Your task to perform on an android device: Go to Amazon Image 0: 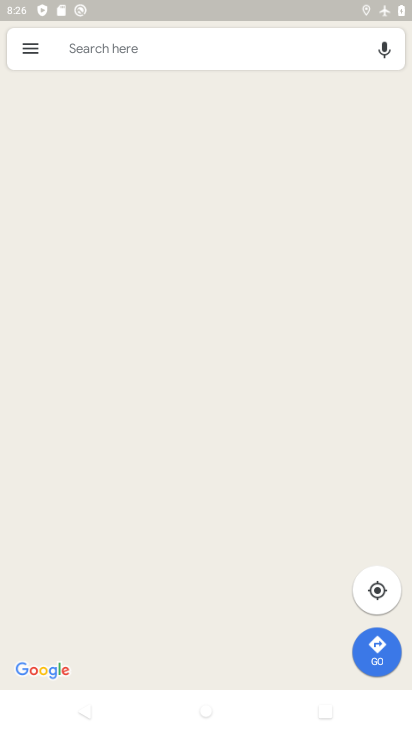
Step 0: press home button
Your task to perform on an android device: Go to Amazon Image 1: 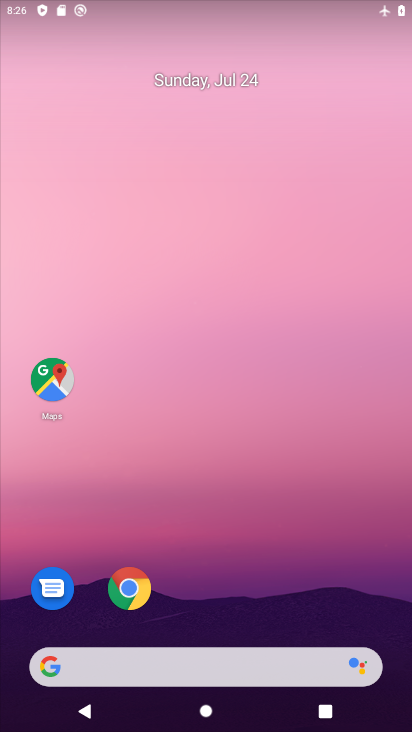
Step 1: click (165, 598)
Your task to perform on an android device: Go to Amazon Image 2: 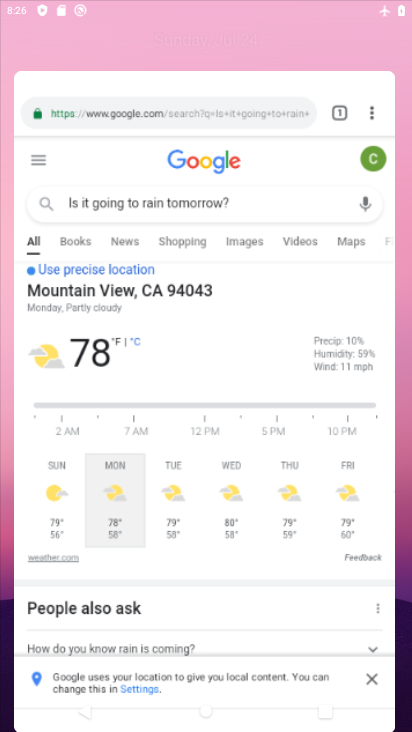
Step 2: click (105, 569)
Your task to perform on an android device: Go to Amazon Image 3: 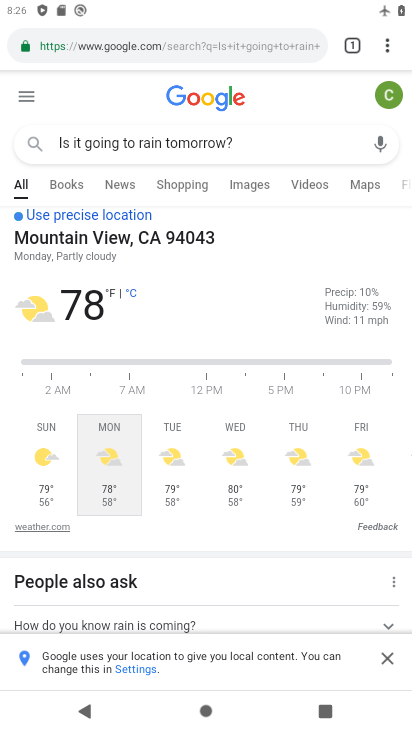
Step 3: click (396, 37)
Your task to perform on an android device: Go to Amazon Image 4: 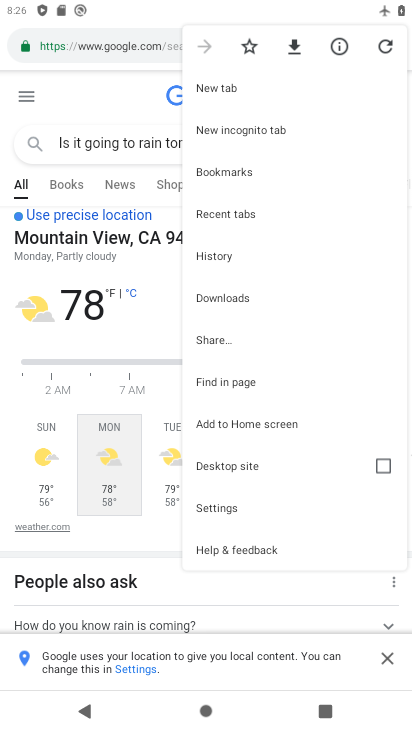
Step 4: click (221, 92)
Your task to perform on an android device: Go to Amazon Image 5: 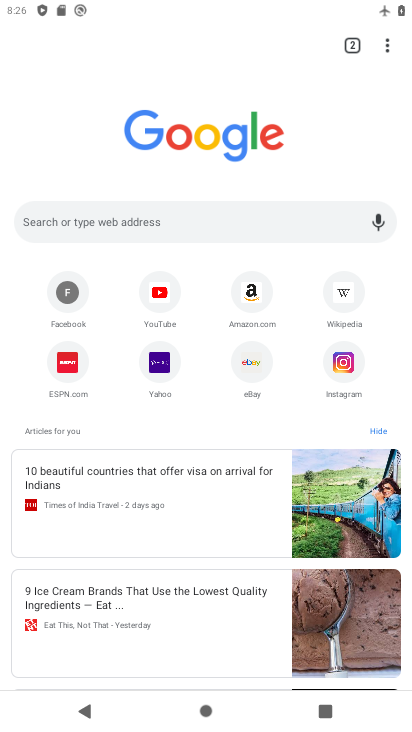
Step 5: click (261, 283)
Your task to perform on an android device: Go to Amazon Image 6: 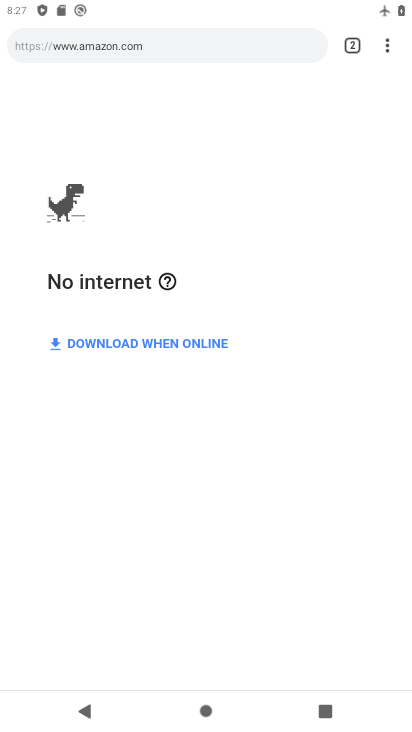
Step 6: task complete